Your task to perform on an android device: Open battery settings Image 0: 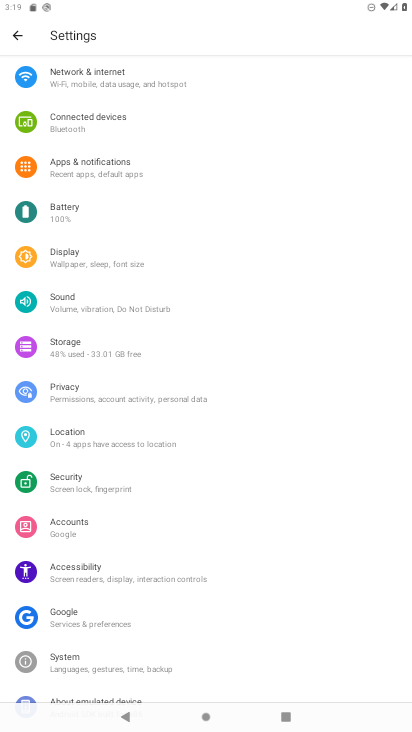
Step 0: click (64, 213)
Your task to perform on an android device: Open battery settings Image 1: 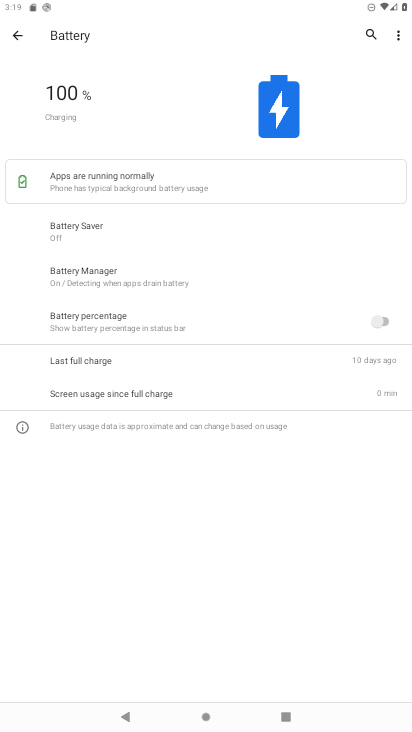
Step 1: task complete